Your task to perform on an android device: toggle data saver in the chrome app Image 0: 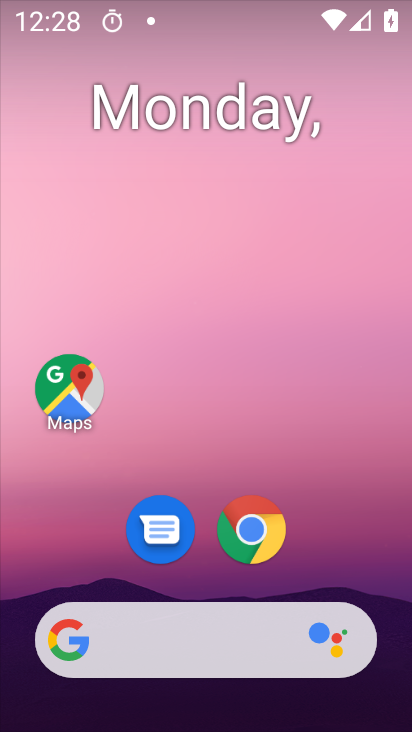
Step 0: click (259, 538)
Your task to perform on an android device: toggle data saver in the chrome app Image 1: 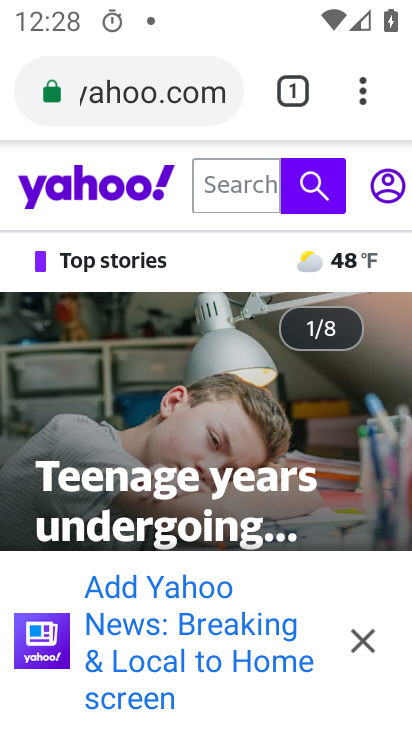
Step 1: click (364, 96)
Your task to perform on an android device: toggle data saver in the chrome app Image 2: 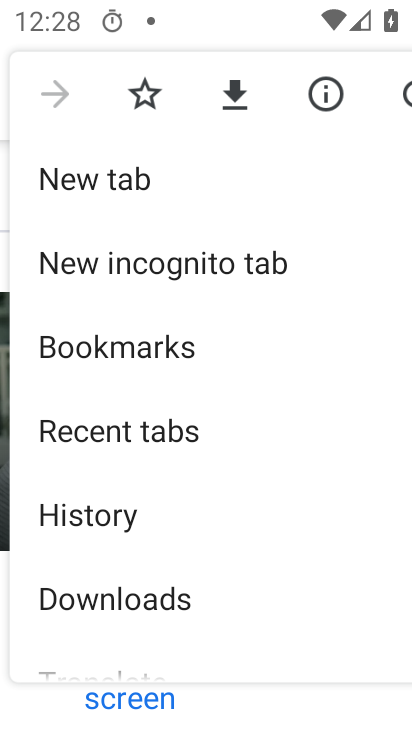
Step 2: drag from (232, 592) to (222, 36)
Your task to perform on an android device: toggle data saver in the chrome app Image 3: 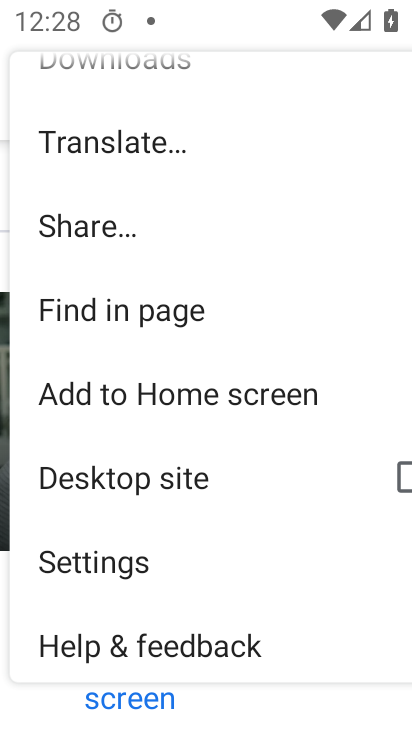
Step 3: drag from (166, 617) to (158, 191)
Your task to perform on an android device: toggle data saver in the chrome app Image 4: 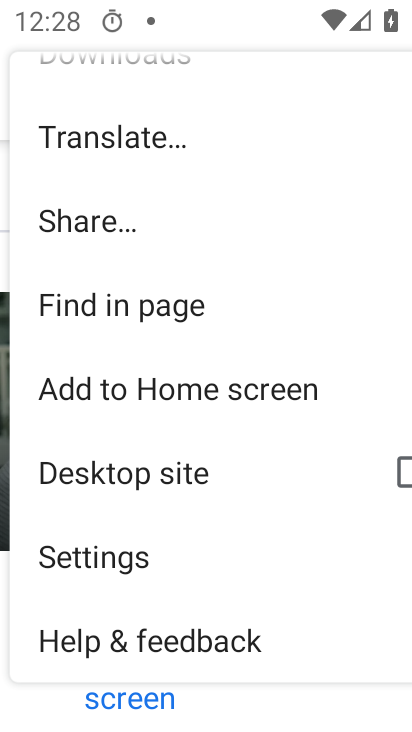
Step 4: click (141, 554)
Your task to perform on an android device: toggle data saver in the chrome app Image 5: 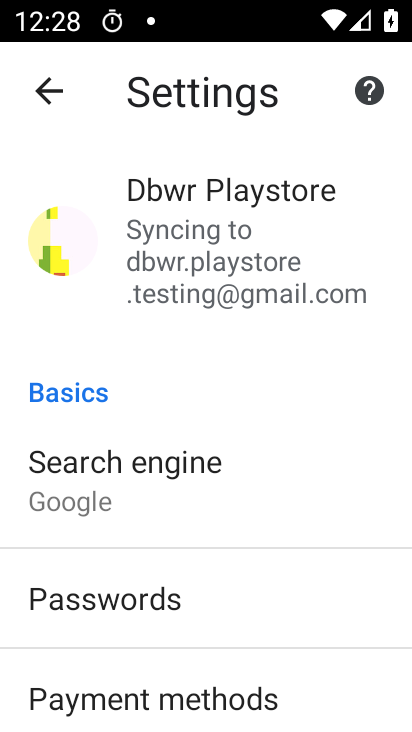
Step 5: drag from (251, 650) to (295, 0)
Your task to perform on an android device: toggle data saver in the chrome app Image 6: 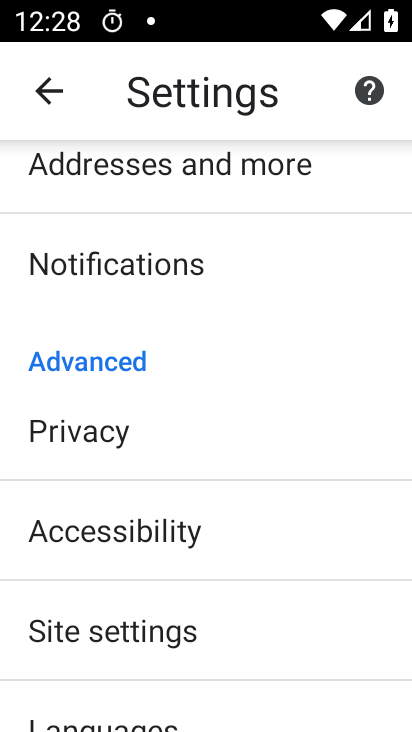
Step 6: drag from (199, 698) to (236, 170)
Your task to perform on an android device: toggle data saver in the chrome app Image 7: 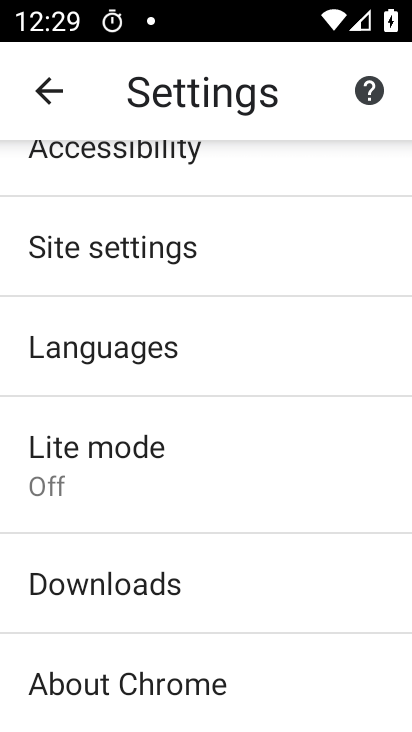
Step 7: click (111, 459)
Your task to perform on an android device: toggle data saver in the chrome app Image 8: 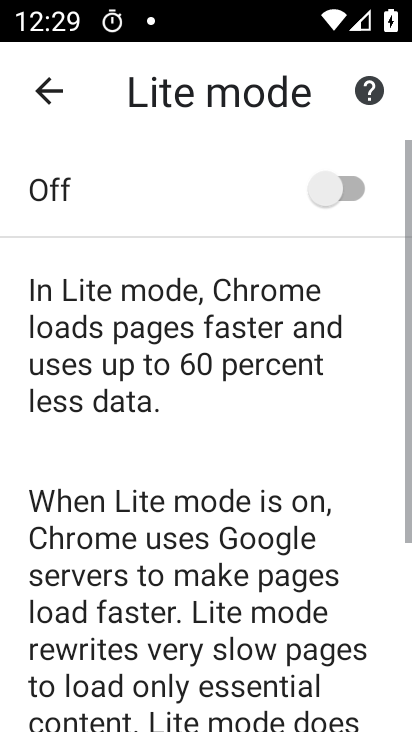
Step 8: click (349, 185)
Your task to perform on an android device: toggle data saver in the chrome app Image 9: 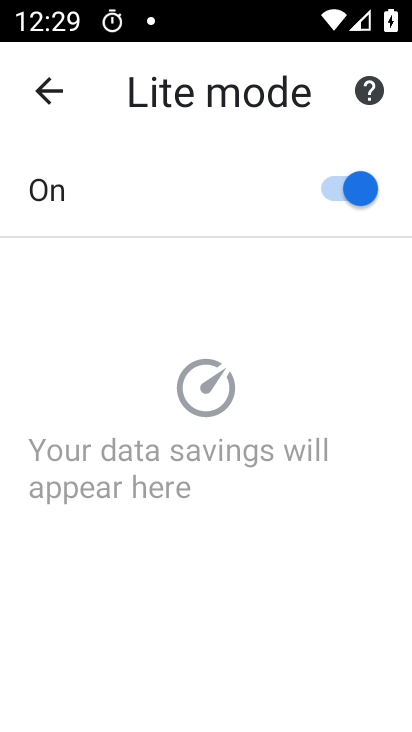
Step 9: task complete